Your task to perform on an android device: turn smart compose on in the gmail app Image 0: 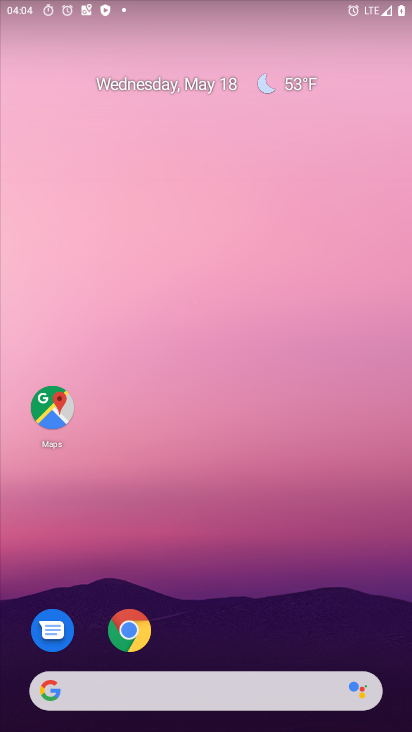
Step 0: drag from (224, 715) to (243, 29)
Your task to perform on an android device: turn smart compose on in the gmail app Image 1: 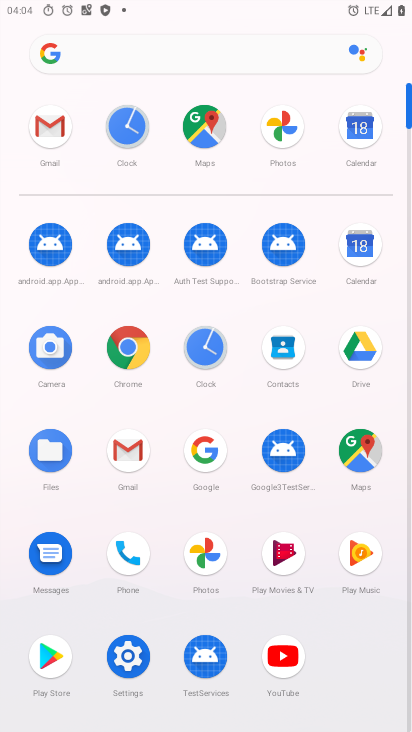
Step 1: click (127, 447)
Your task to perform on an android device: turn smart compose on in the gmail app Image 2: 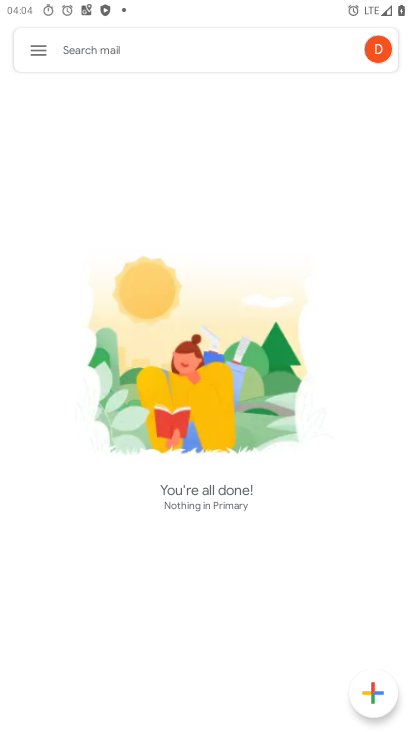
Step 2: click (32, 53)
Your task to perform on an android device: turn smart compose on in the gmail app Image 3: 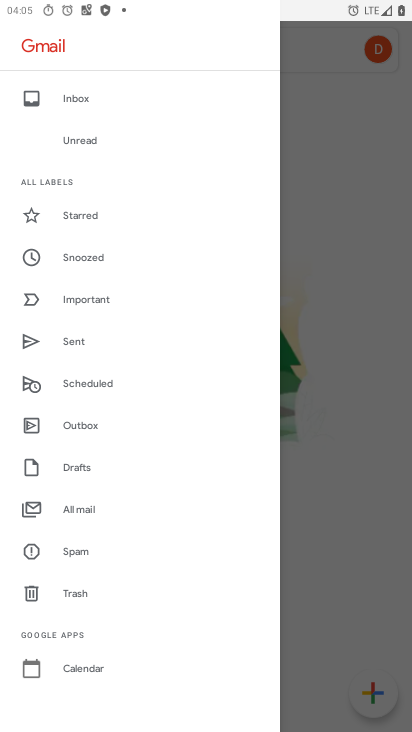
Step 3: drag from (89, 601) to (124, 331)
Your task to perform on an android device: turn smart compose on in the gmail app Image 4: 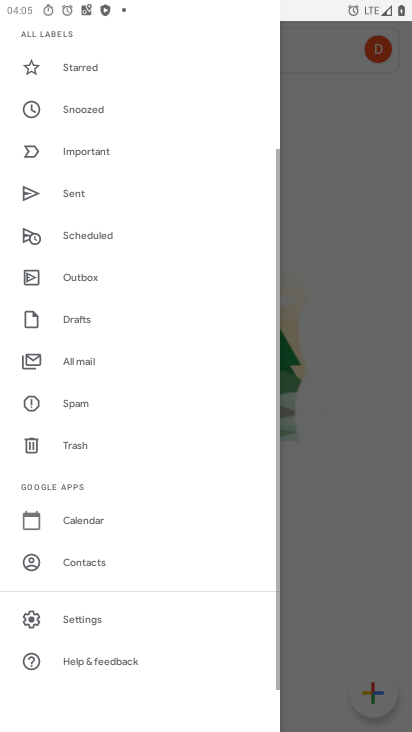
Step 4: click (74, 613)
Your task to perform on an android device: turn smart compose on in the gmail app Image 5: 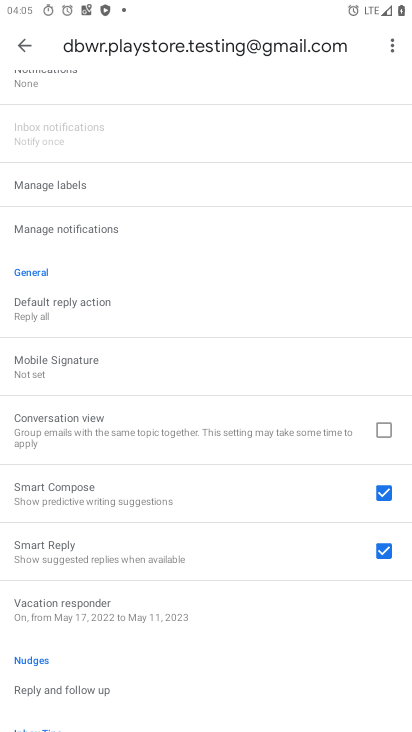
Step 5: task complete